Your task to perform on an android device: Open location settings Image 0: 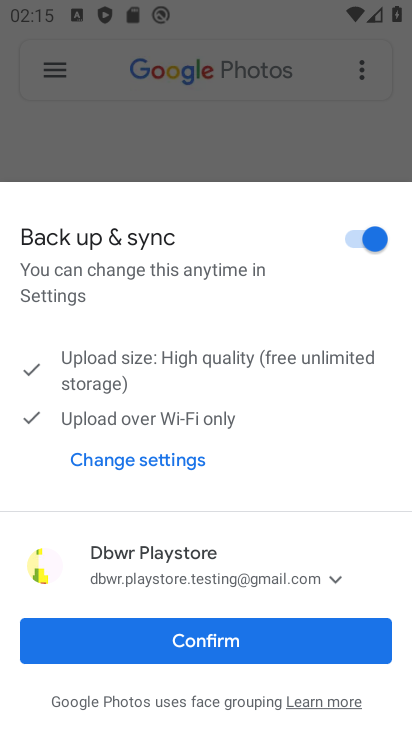
Step 0: press home button
Your task to perform on an android device: Open location settings Image 1: 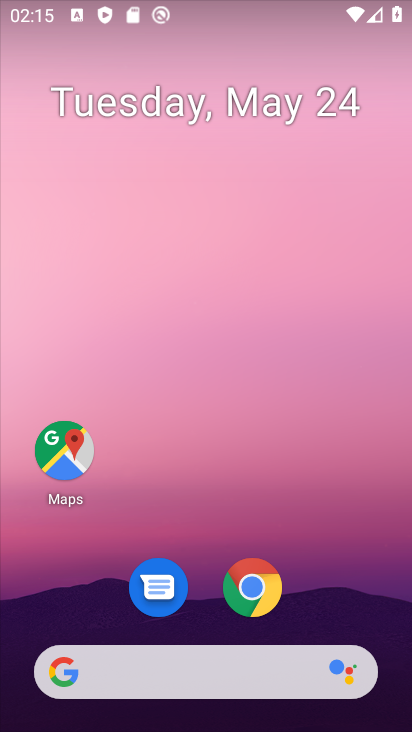
Step 1: drag from (327, 722) to (218, 16)
Your task to perform on an android device: Open location settings Image 2: 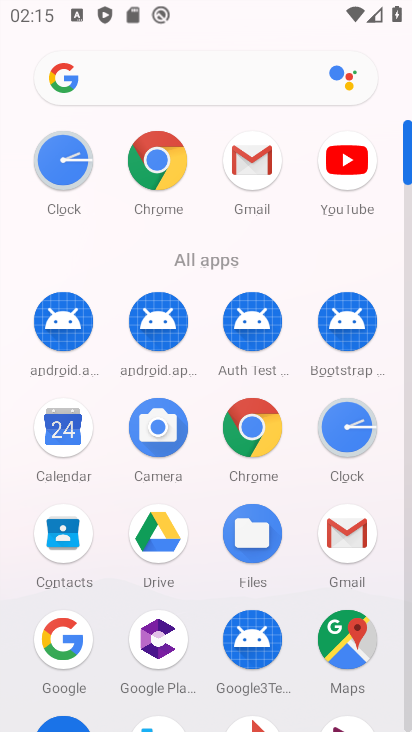
Step 2: drag from (300, 574) to (270, 74)
Your task to perform on an android device: Open location settings Image 3: 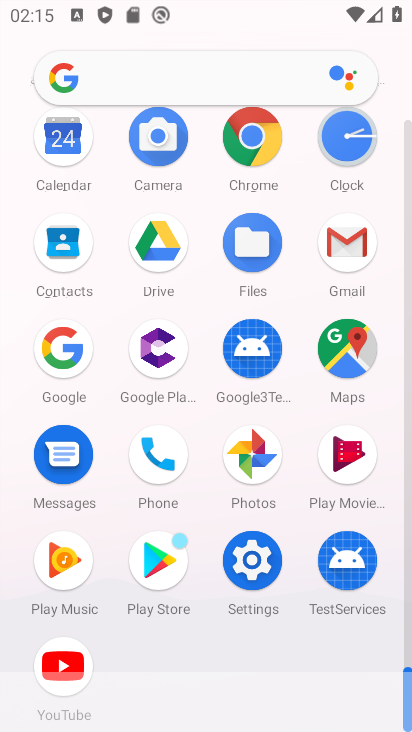
Step 3: click (257, 556)
Your task to perform on an android device: Open location settings Image 4: 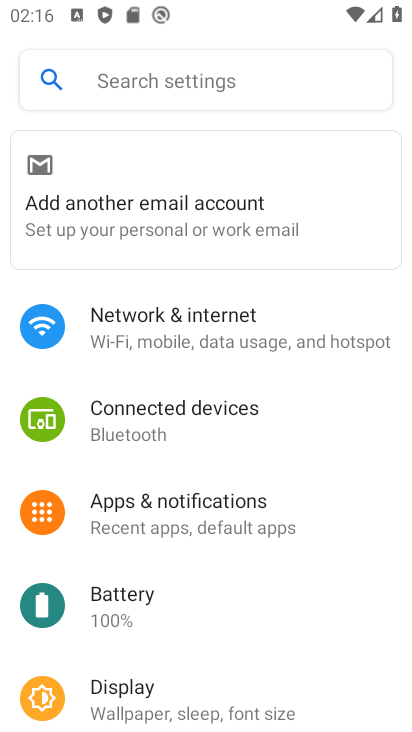
Step 4: drag from (187, 629) to (214, 0)
Your task to perform on an android device: Open location settings Image 5: 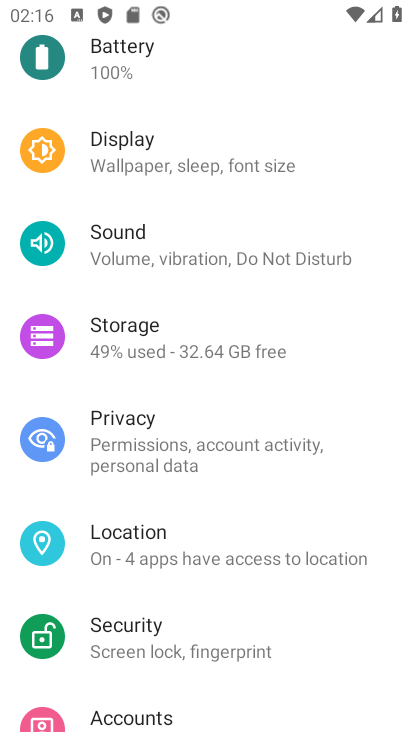
Step 5: click (205, 539)
Your task to perform on an android device: Open location settings Image 6: 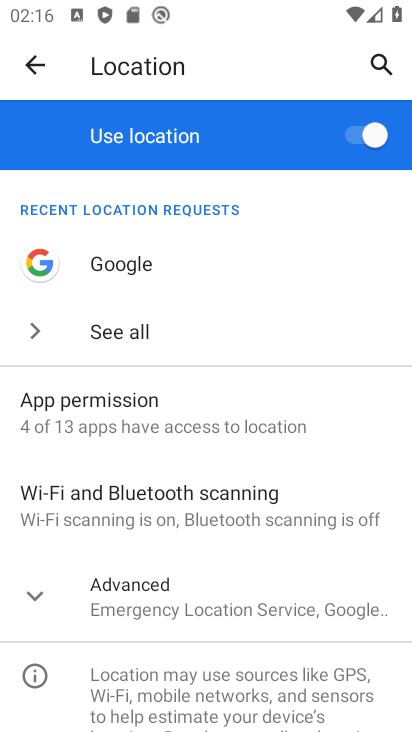
Step 6: task complete